Your task to perform on an android device: Show me the alarms in the clock app Image 0: 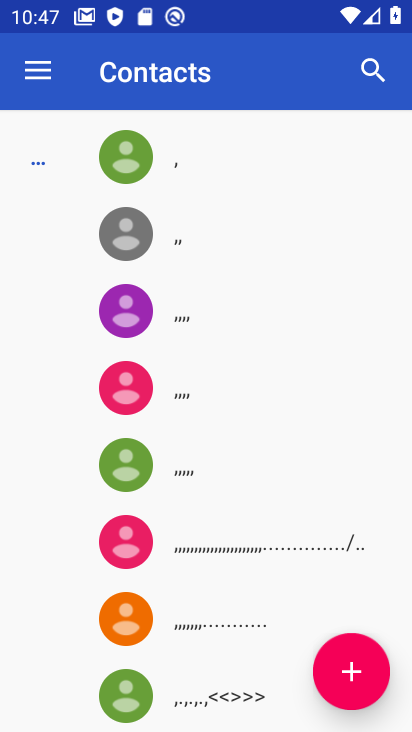
Step 0: press home button
Your task to perform on an android device: Show me the alarms in the clock app Image 1: 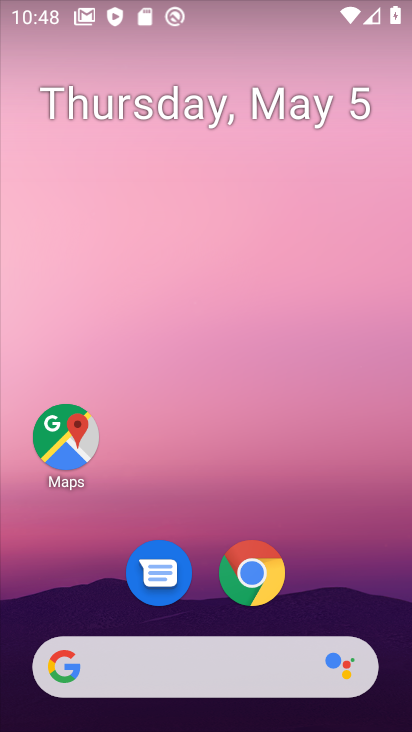
Step 1: drag from (309, 563) to (345, 161)
Your task to perform on an android device: Show me the alarms in the clock app Image 2: 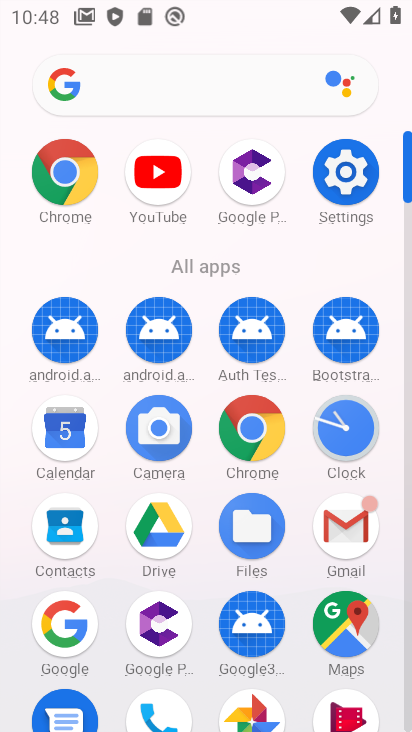
Step 2: click (352, 432)
Your task to perform on an android device: Show me the alarms in the clock app Image 3: 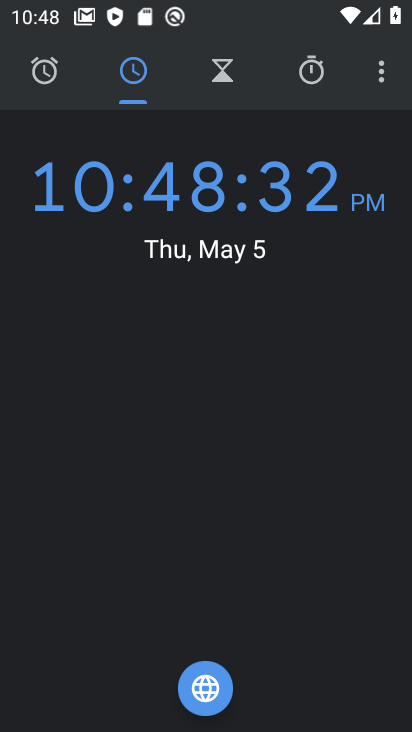
Step 3: click (48, 70)
Your task to perform on an android device: Show me the alarms in the clock app Image 4: 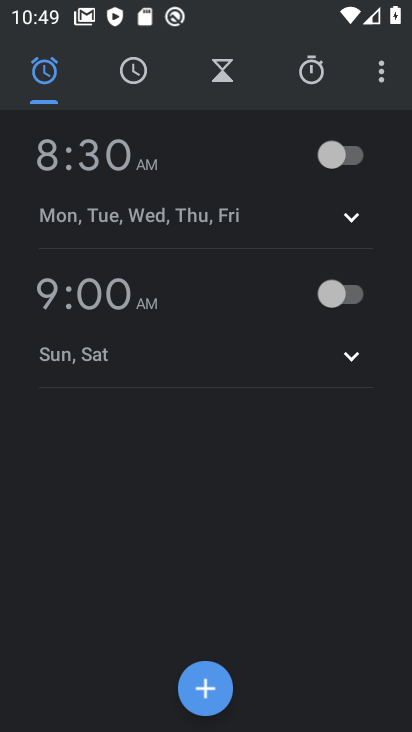
Step 4: task complete